Your task to perform on an android device: change text size in settings app Image 0: 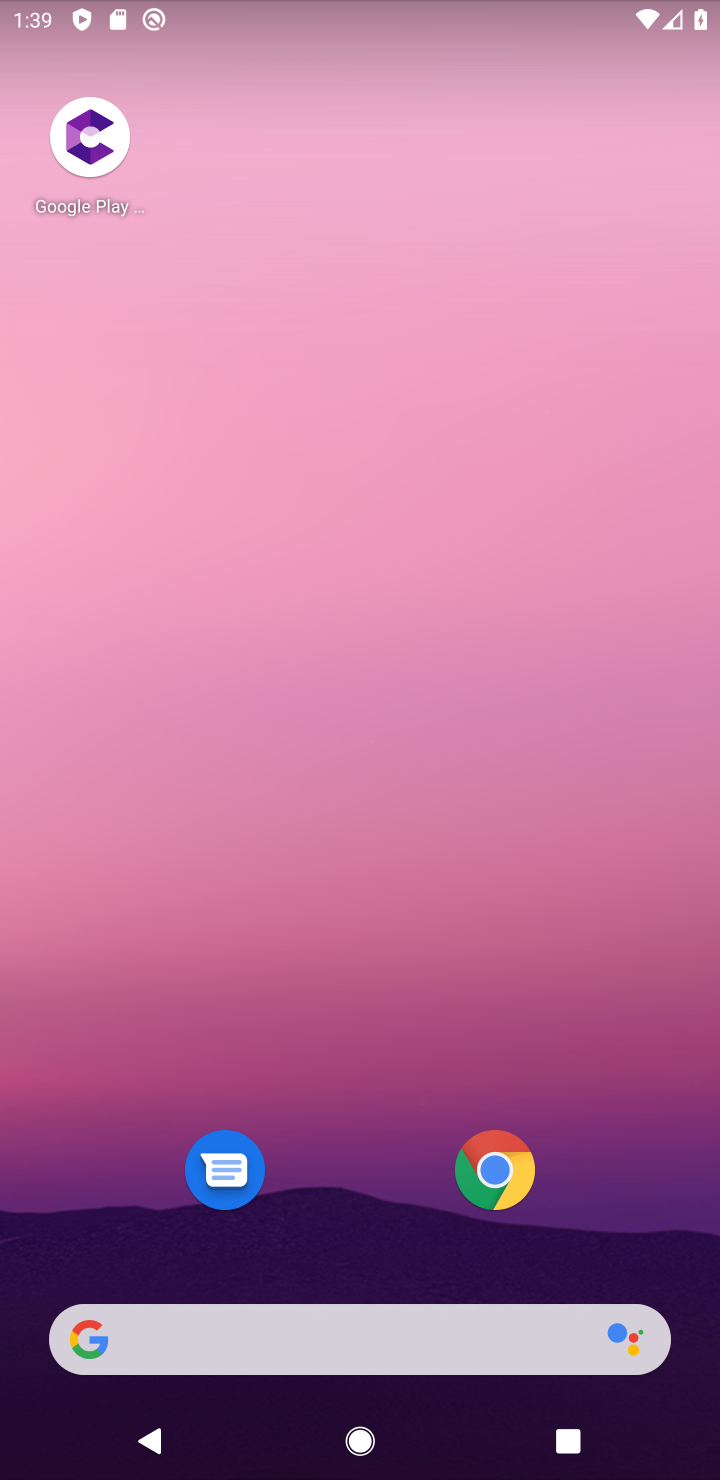
Step 0: drag from (28, 1396) to (377, 326)
Your task to perform on an android device: change text size in settings app Image 1: 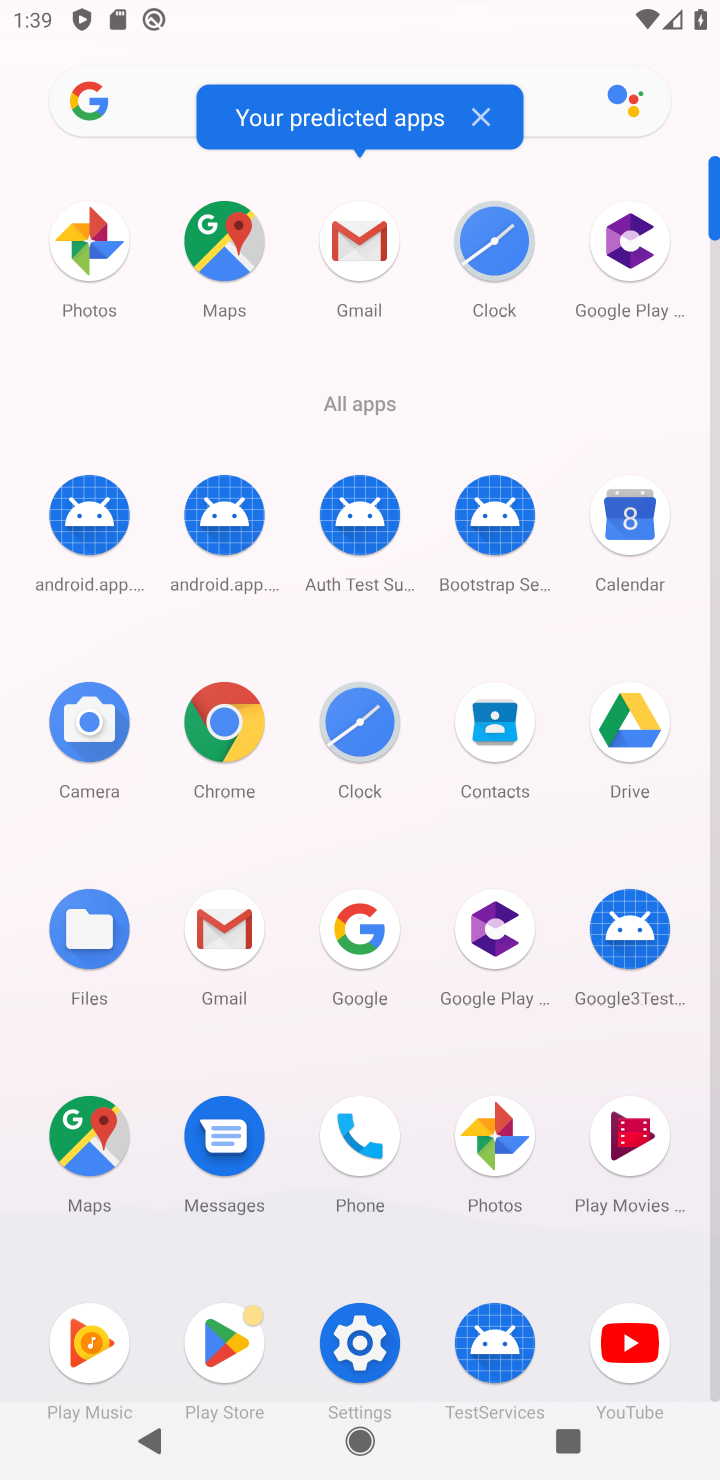
Step 1: click (358, 1353)
Your task to perform on an android device: change text size in settings app Image 2: 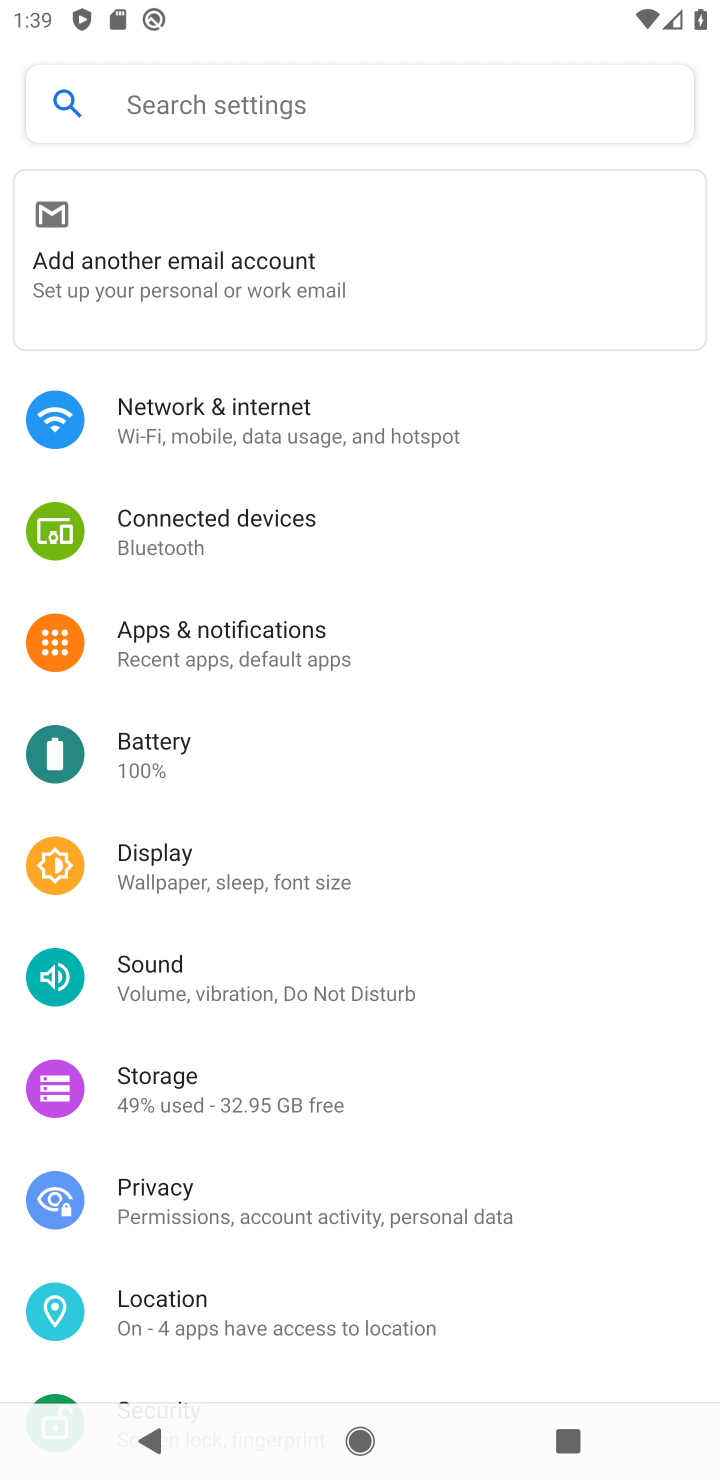
Step 2: task complete